Your task to perform on an android device: create a new album in the google photos Image 0: 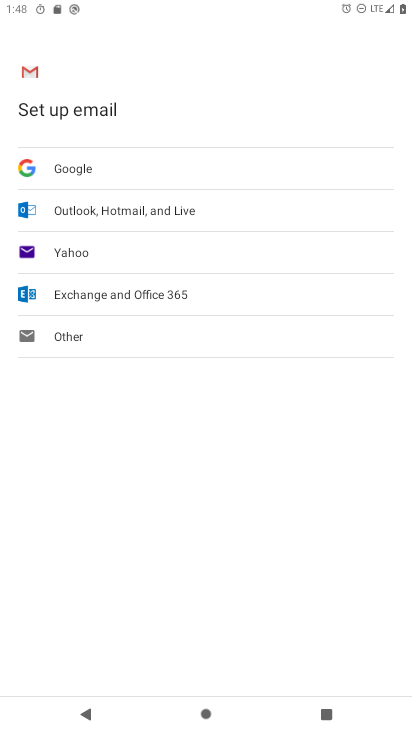
Step 0: press home button
Your task to perform on an android device: create a new album in the google photos Image 1: 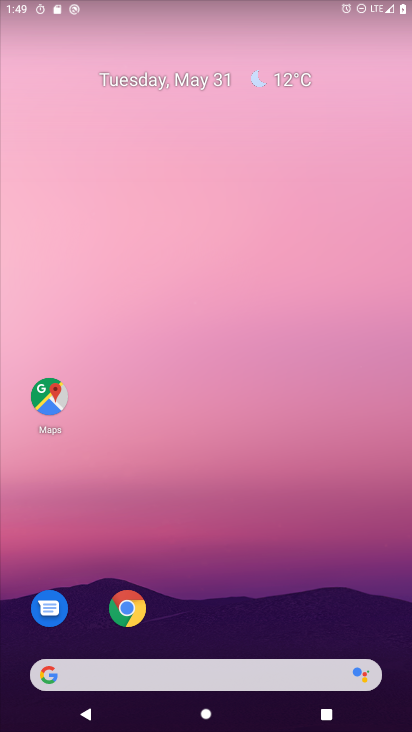
Step 1: drag from (264, 641) to (327, 14)
Your task to perform on an android device: create a new album in the google photos Image 2: 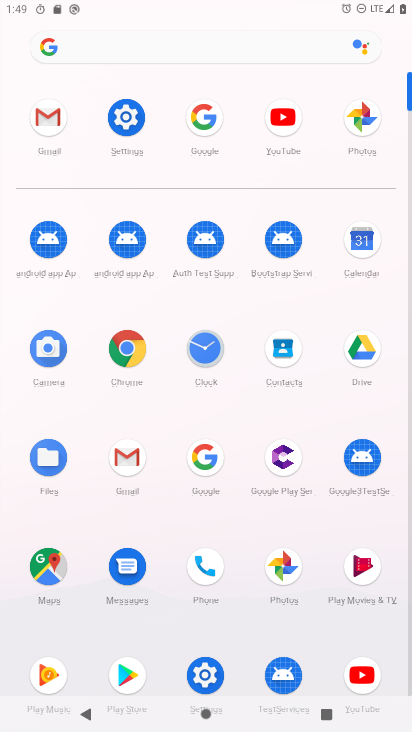
Step 2: click (362, 115)
Your task to perform on an android device: create a new album in the google photos Image 3: 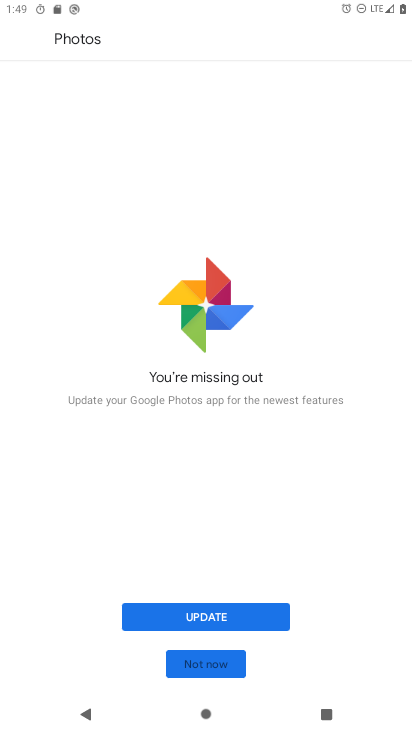
Step 3: click (206, 667)
Your task to perform on an android device: create a new album in the google photos Image 4: 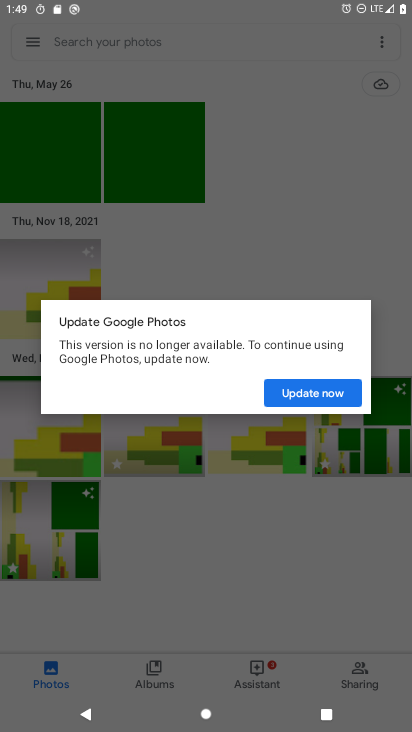
Step 4: click (290, 394)
Your task to perform on an android device: create a new album in the google photos Image 5: 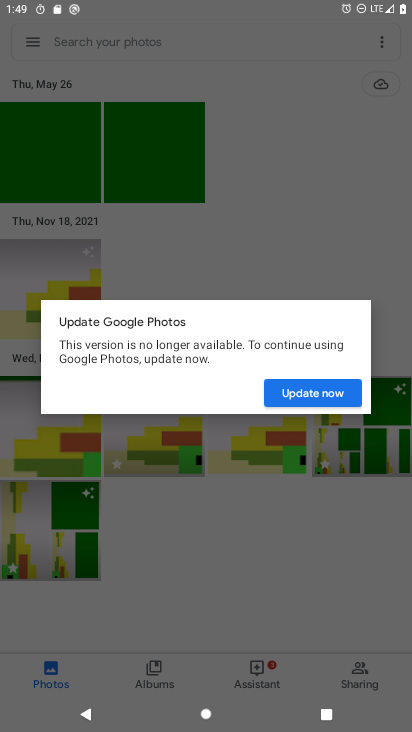
Step 5: click (318, 397)
Your task to perform on an android device: create a new album in the google photos Image 6: 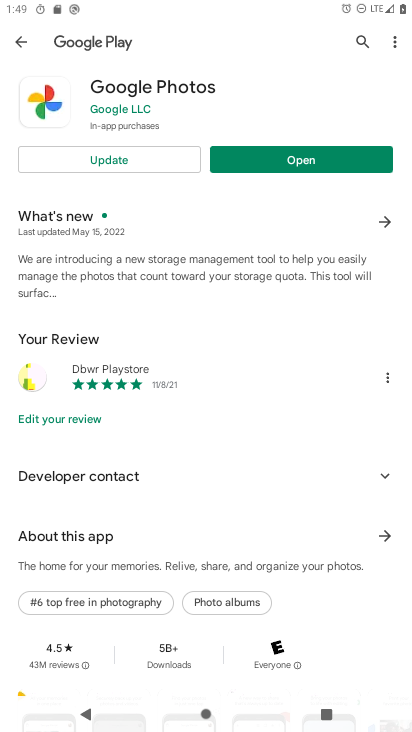
Step 6: click (272, 158)
Your task to perform on an android device: create a new album in the google photos Image 7: 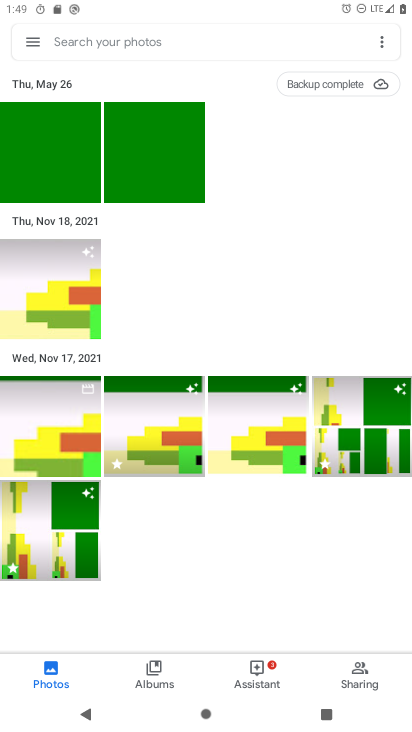
Step 7: click (178, 423)
Your task to perform on an android device: create a new album in the google photos Image 8: 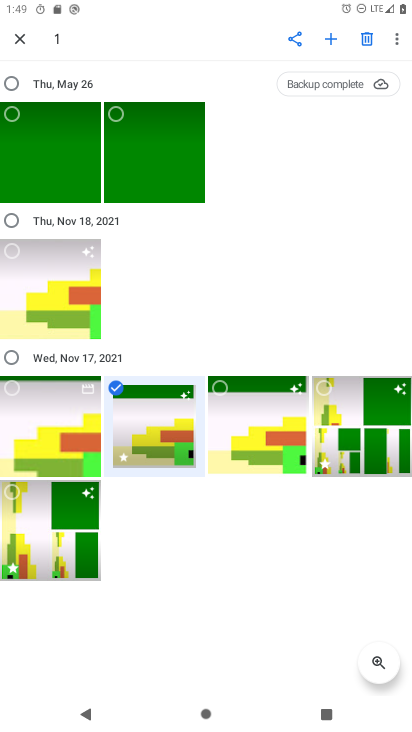
Step 8: click (333, 42)
Your task to perform on an android device: create a new album in the google photos Image 9: 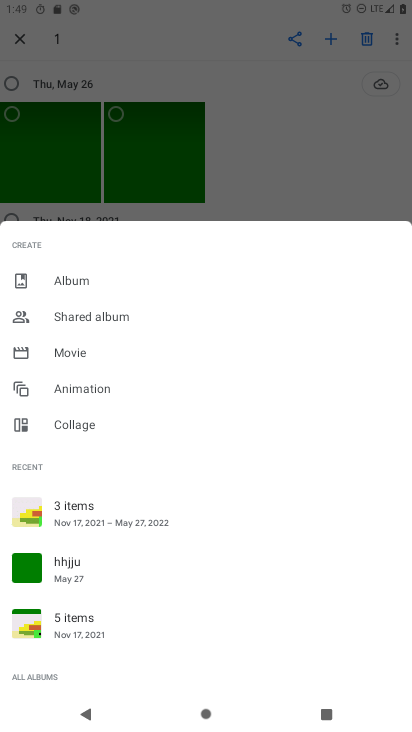
Step 9: click (61, 290)
Your task to perform on an android device: create a new album in the google photos Image 10: 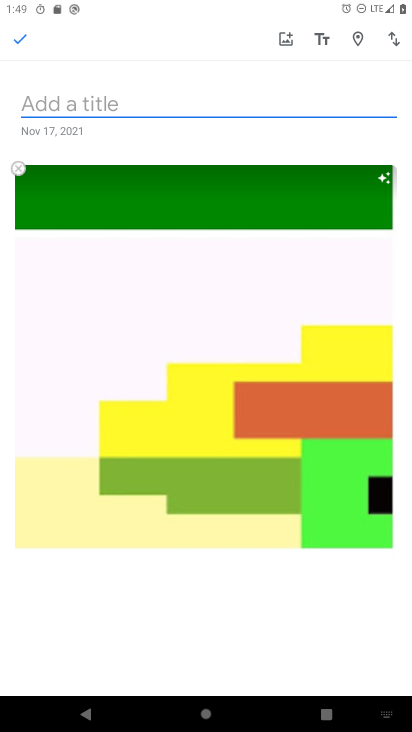
Step 10: click (99, 95)
Your task to perform on an android device: create a new album in the google photos Image 11: 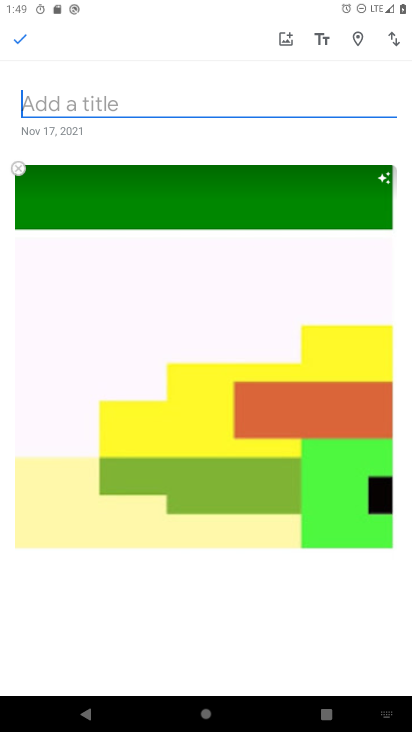
Step 11: type "new 3"
Your task to perform on an android device: create a new album in the google photos Image 12: 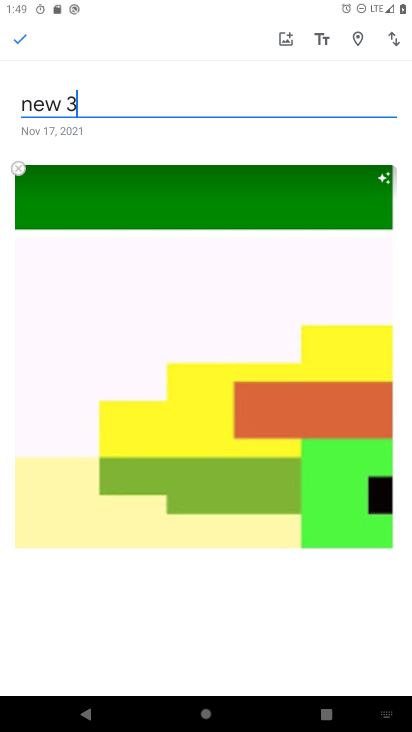
Step 12: click (21, 43)
Your task to perform on an android device: create a new album in the google photos Image 13: 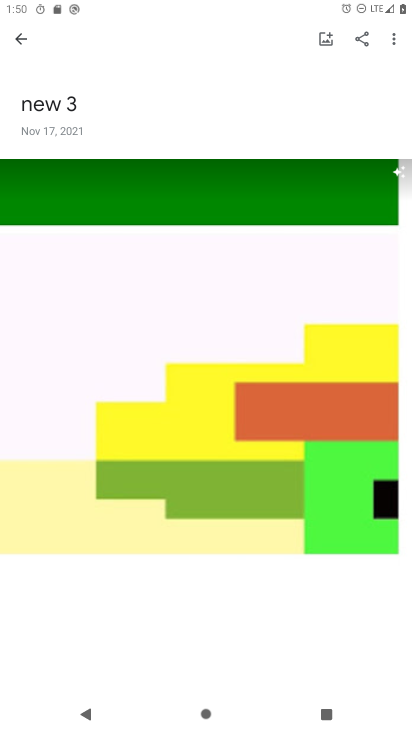
Step 13: task complete